Your task to perform on an android device: stop showing notifications on the lock screen Image 0: 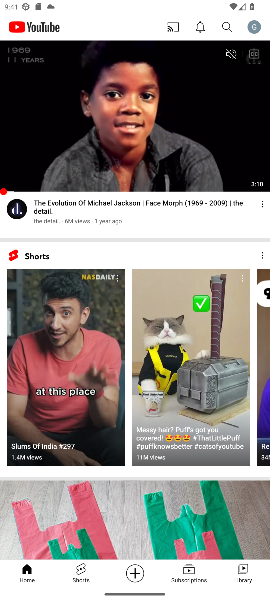
Step 0: press home button
Your task to perform on an android device: stop showing notifications on the lock screen Image 1: 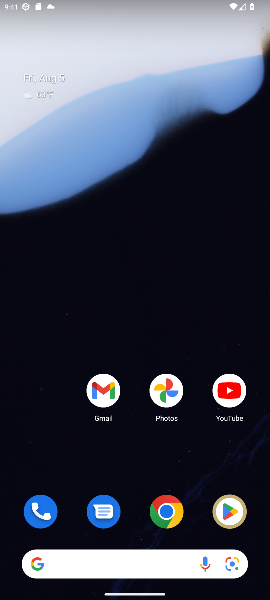
Step 1: drag from (97, 556) to (164, 236)
Your task to perform on an android device: stop showing notifications on the lock screen Image 2: 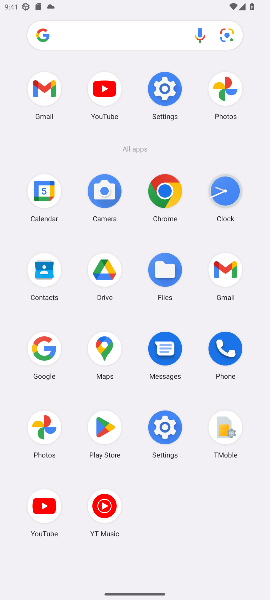
Step 2: click (163, 86)
Your task to perform on an android device: stop showing notifications on the lock screen Image 3: 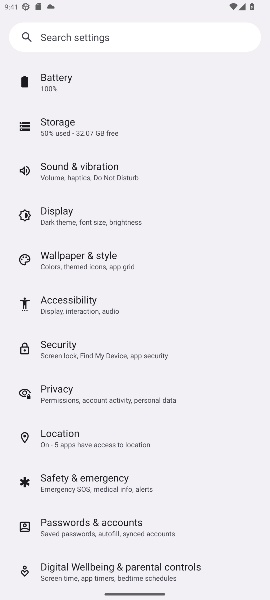
Step 3: drag from (109, 197) to (83, 298)
Your task to perform on an android device: stop showing notifications on the lock screen Image 4: 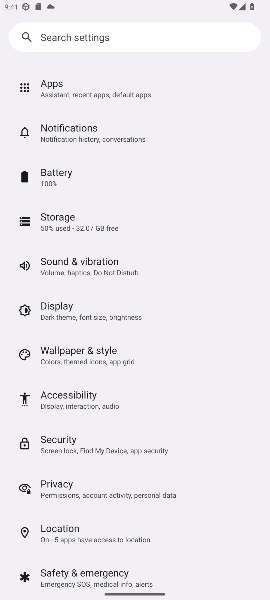
Step 4: click (92, 139)
Your task to perform on an android device: stop showing notifications on the lock screen Image 5: 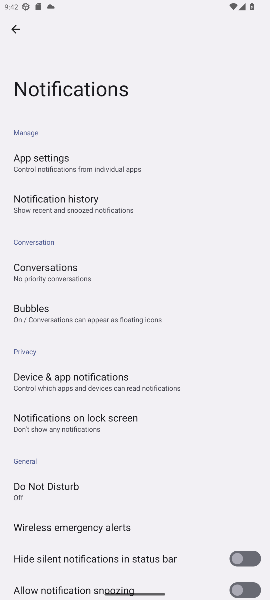
Step 5: click (66, 423)
Your task to perform on an android device: stop showing notifications on the lock screen Image 6: 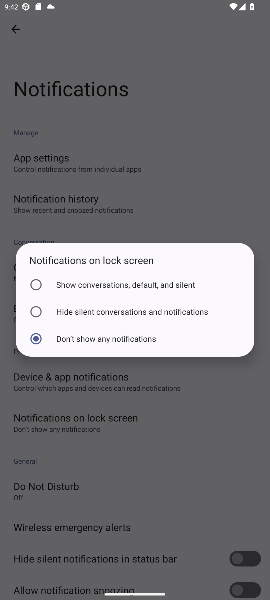
Step 6: click (37, 339)
Your task to perform on an android device: stop showing notifications on the lock screen Image 7: 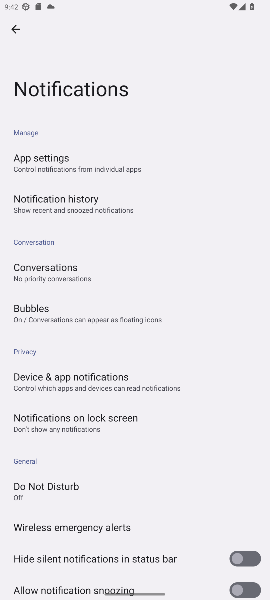
Step 7: task complete